Your task to perform on an android device: Is it going to rain tomorrow? Image 0: 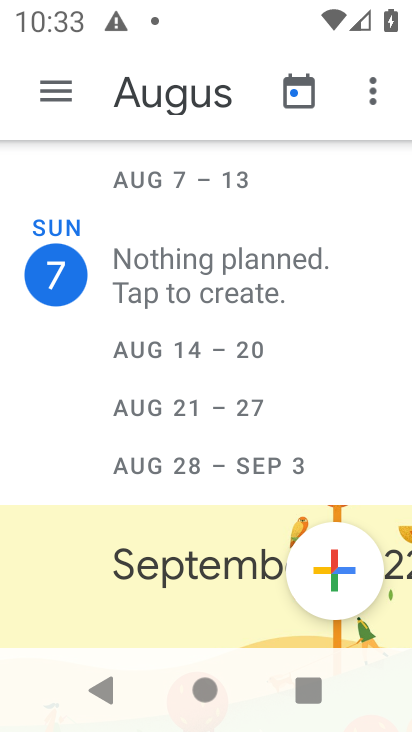
Step 0: press home button
Your task to perform on an android device: Is it going to rain tomorrow? Image 1: 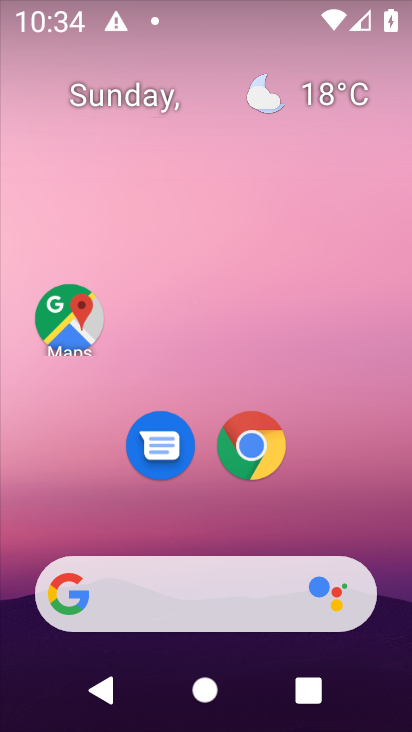
Step 1: click (293, 112)
Your task to perform on an android device: Is it going to rain tomorrow? Image 2: 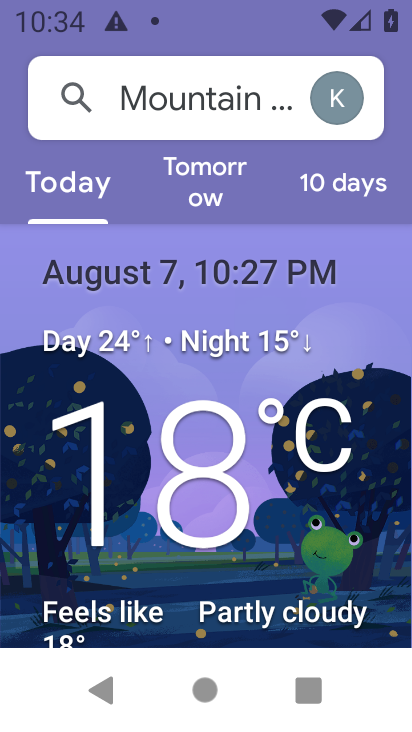
Step 2: click (204, 184)
Your task to perform on an android device: Is it going to rain tomorrow? Image 3: 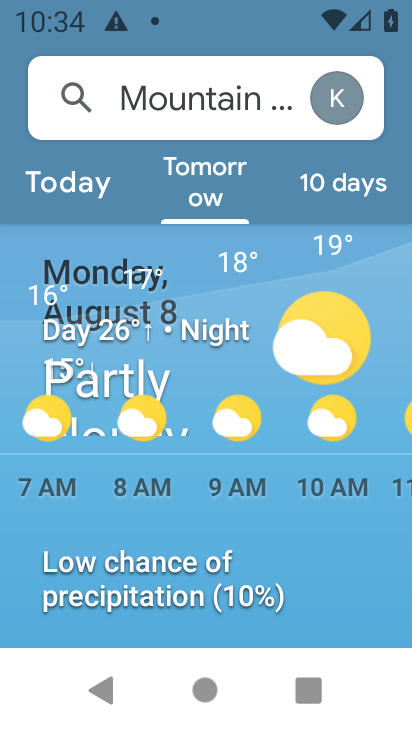
Step 3: task complete